Your task to perform on an android device: change the clock style Image 0: 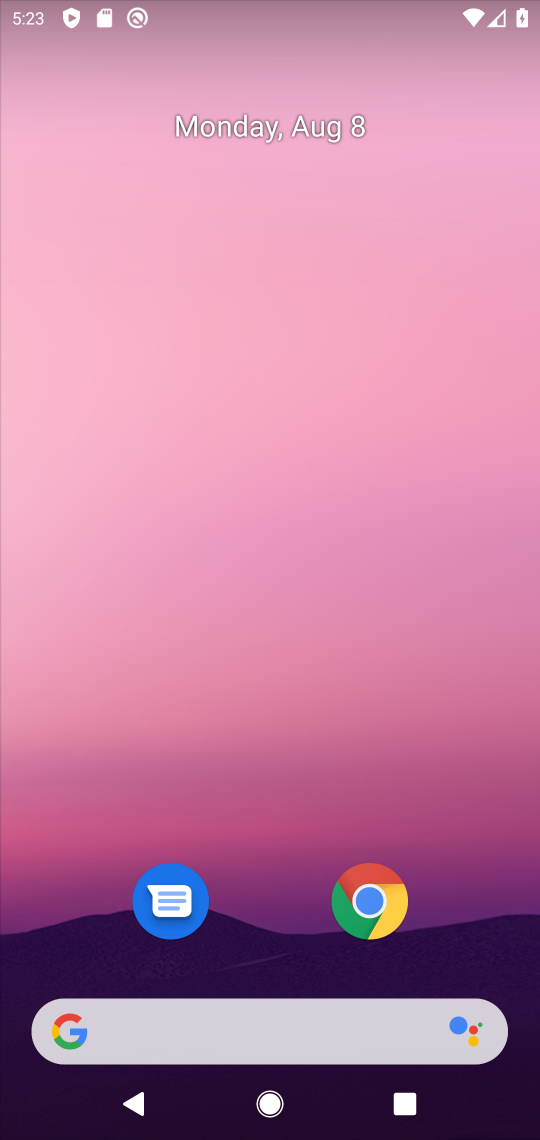
Step 0: click (404, 900)
Your task to perform on an android device: change the clock style Image 1: 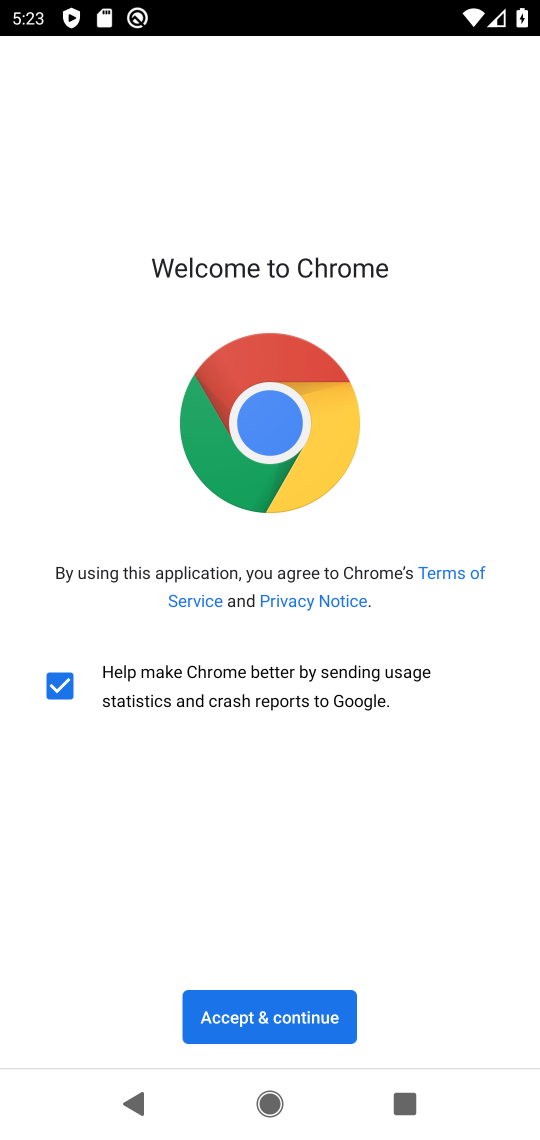
Step 1: click (281, 1023)
Your task to perform on an android device: change the clock style Image 2: 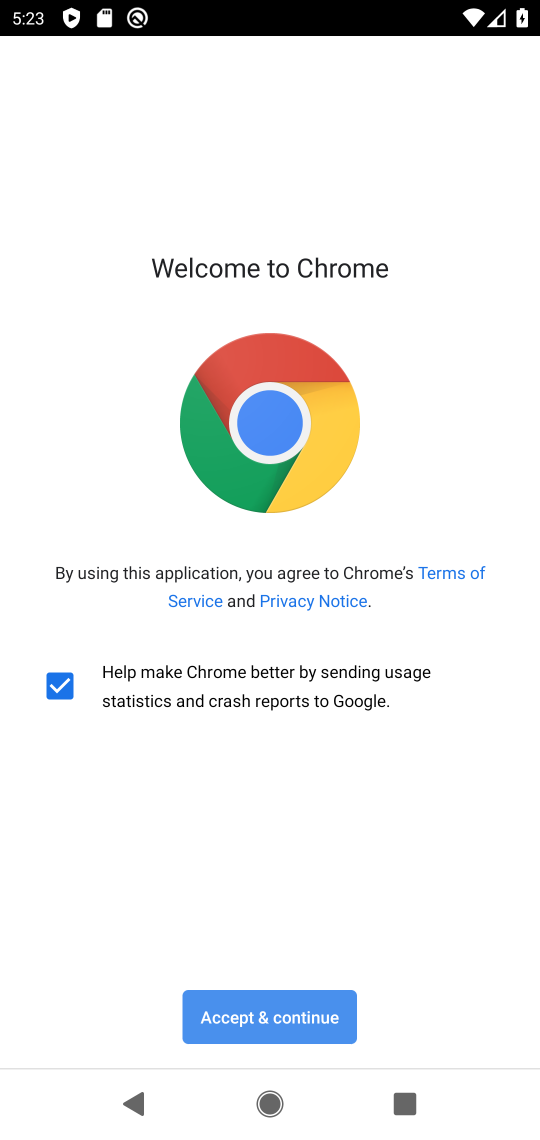
Step 2: press home button
Your task to perform on an android device: change the clock style Image 3: 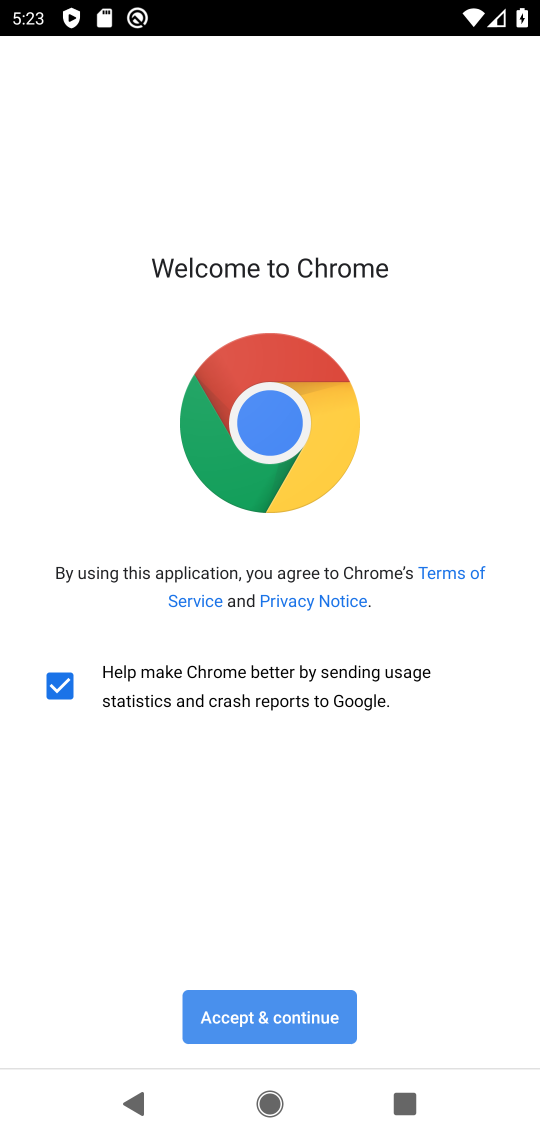
Step 3: drag from (322, 1016) to (522, 918)
Your task to perform on an android device: change the clock style Image 4: 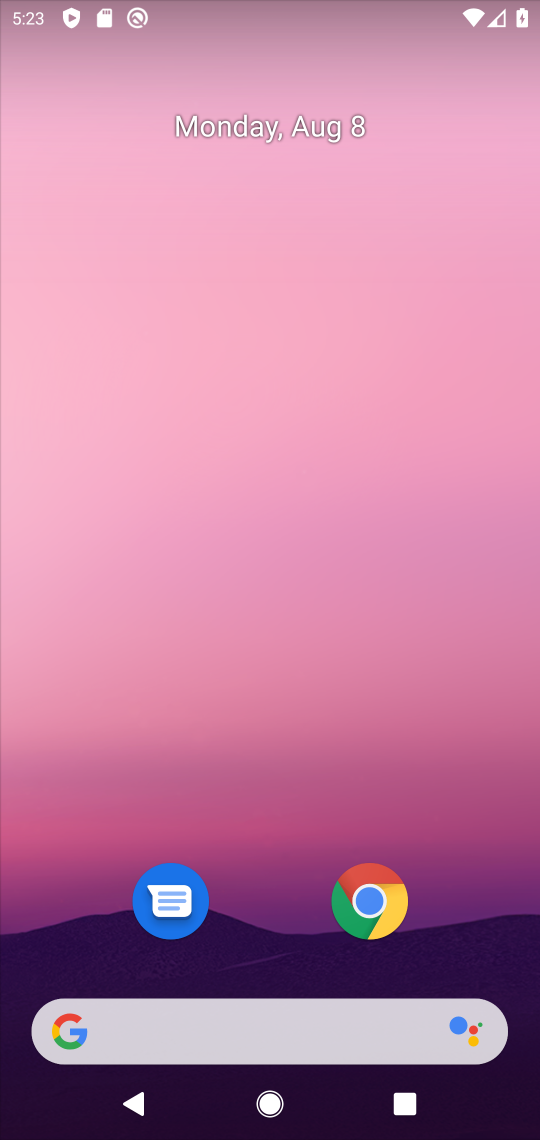
Step 4: drag from (474, 925) to (237, 170)
Your task to perform on an android device: change the clock style Image 5: 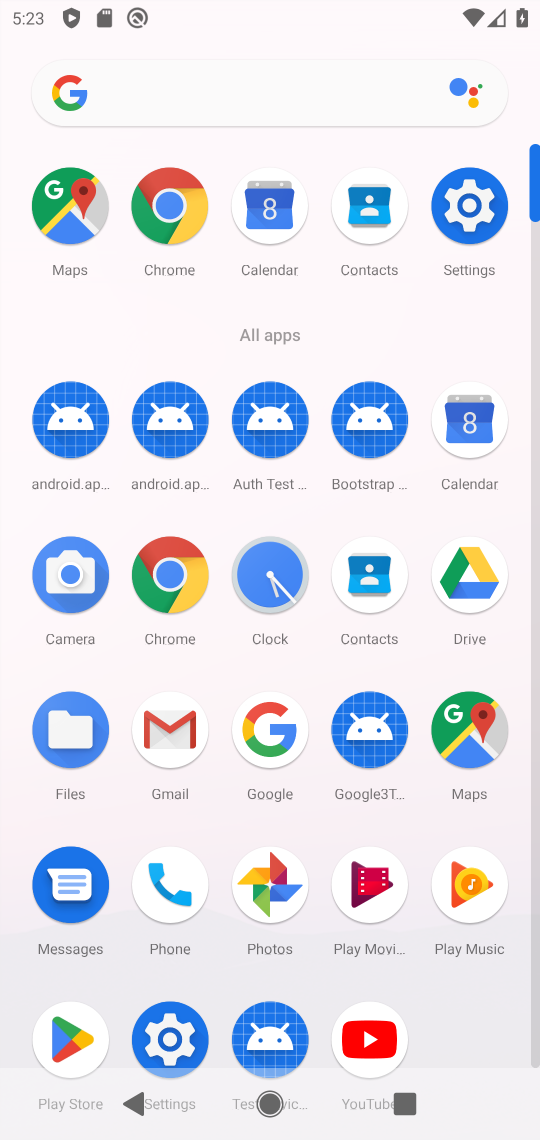
Step 5: click (273, 609)
Your task to perform on an android device: change the clock style Image 6: 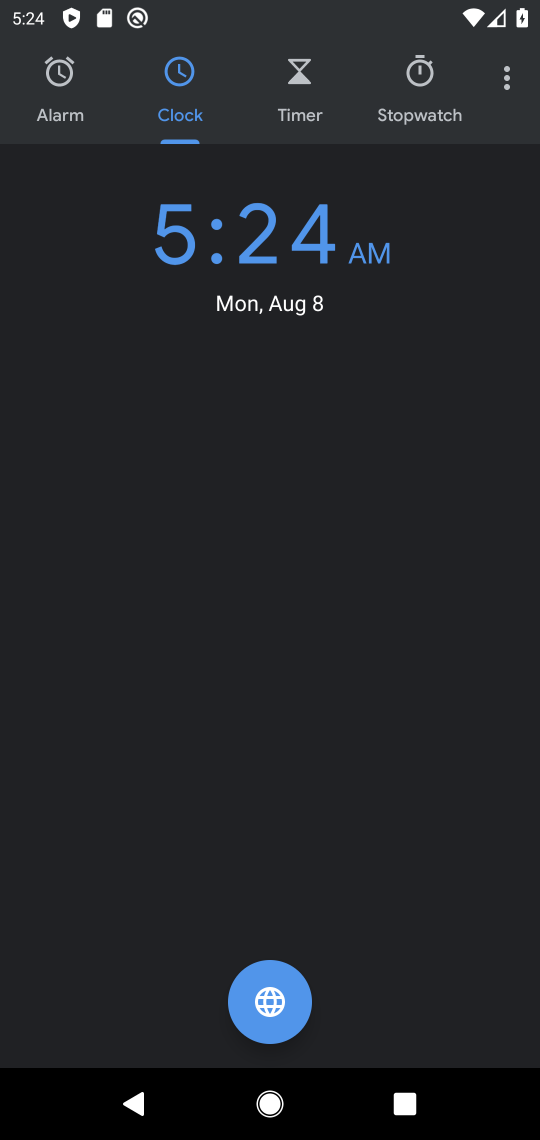
Step 6: click (527, 100)
Your task to perform on an android device: change the clock style Image 7: 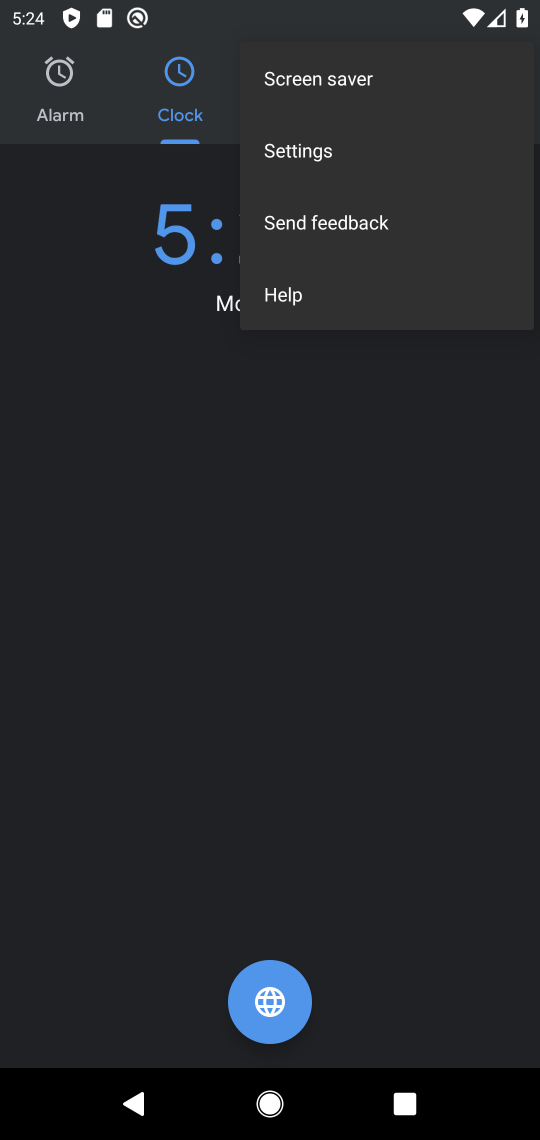
Step 7: click (425, 142)
Your task to perform on an android device: change the clock style Image 8: 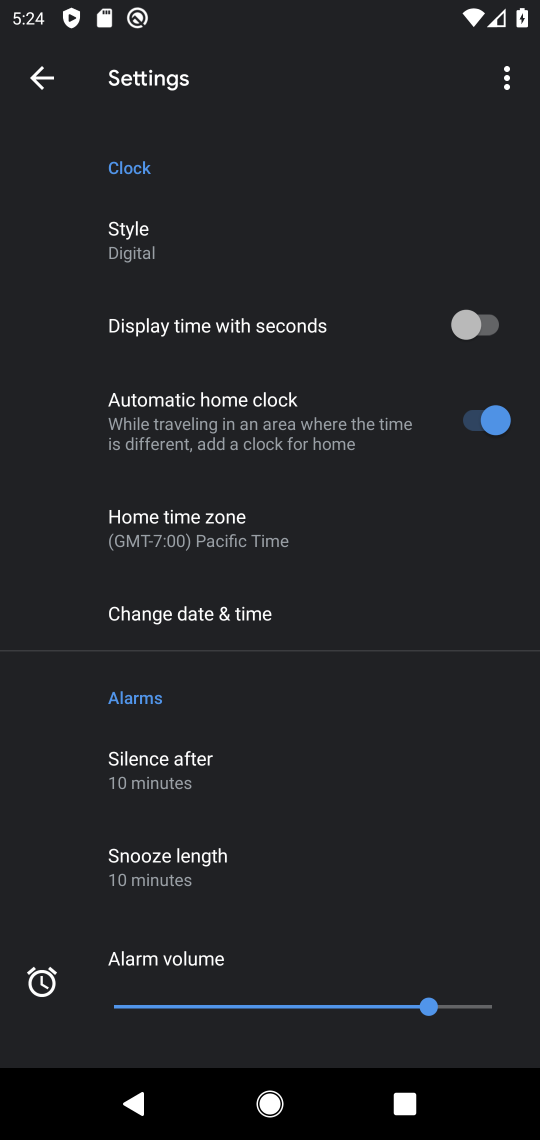
Step 8: click (330, 258)
Your task to perform on an android device: change the clock style Image 9: 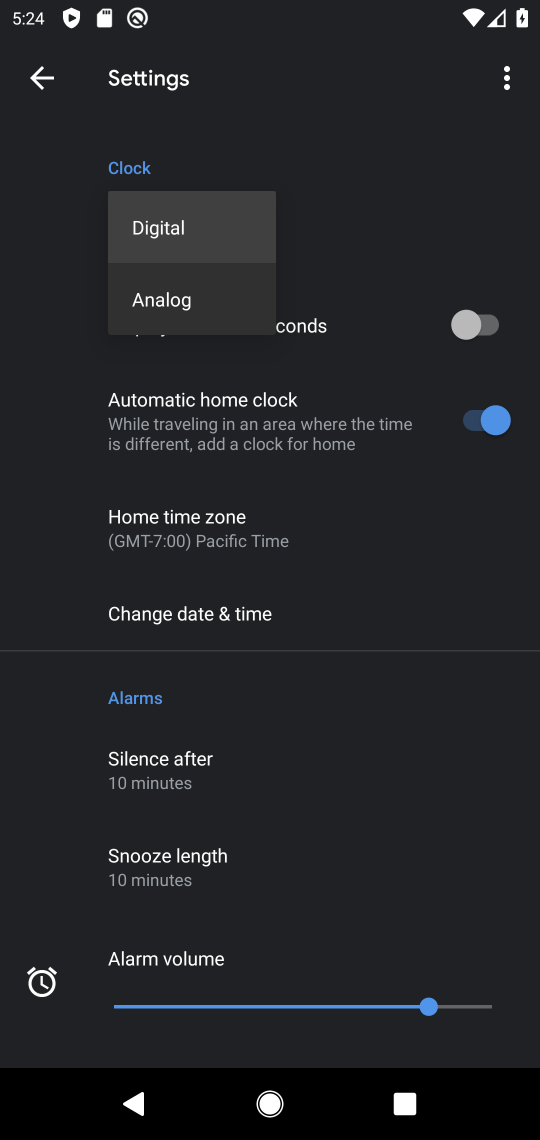
Step 9: click (210, 302)
Your task to perform on an android device: change the clock style Image 10: 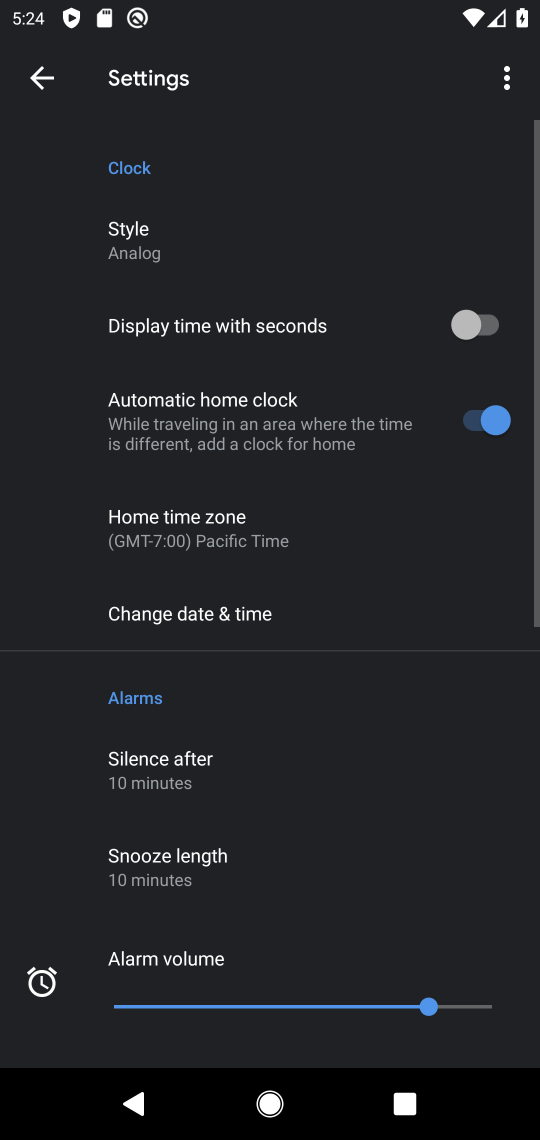
Step 10: task complete